Your task to perform on an android device: Show the shopping cart on target. Add usb-c to usb-a to the cart on target, then select checkout. Image 0: 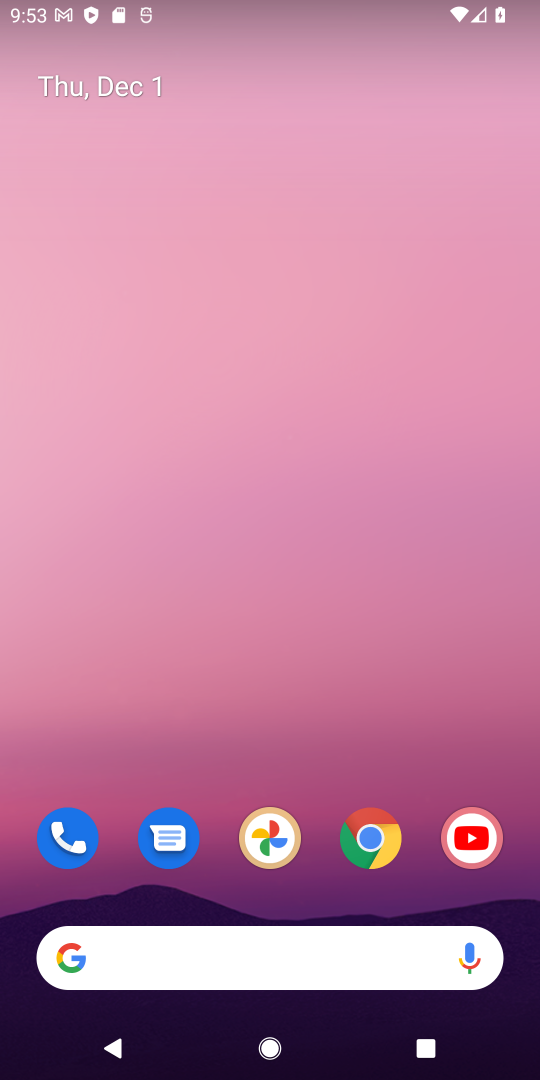
Step 0: drag from (275, 918) to (222, 334)
Your task to perform on an android device: Show the shopping cart on target. Add usb-c to usb-a to the cart on target, then select checkout. Image 1: 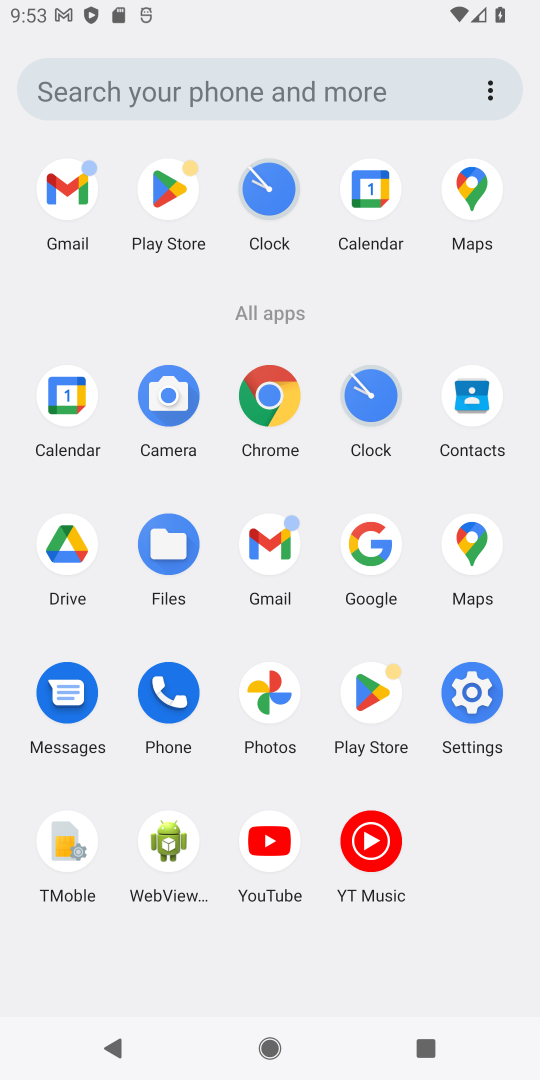
Step 1: click (363, 548)
Your task to perform on an android device: Show the shopping cart on target. Add usb-c to usb-a to the cart on target, then select checkout. Image 2: 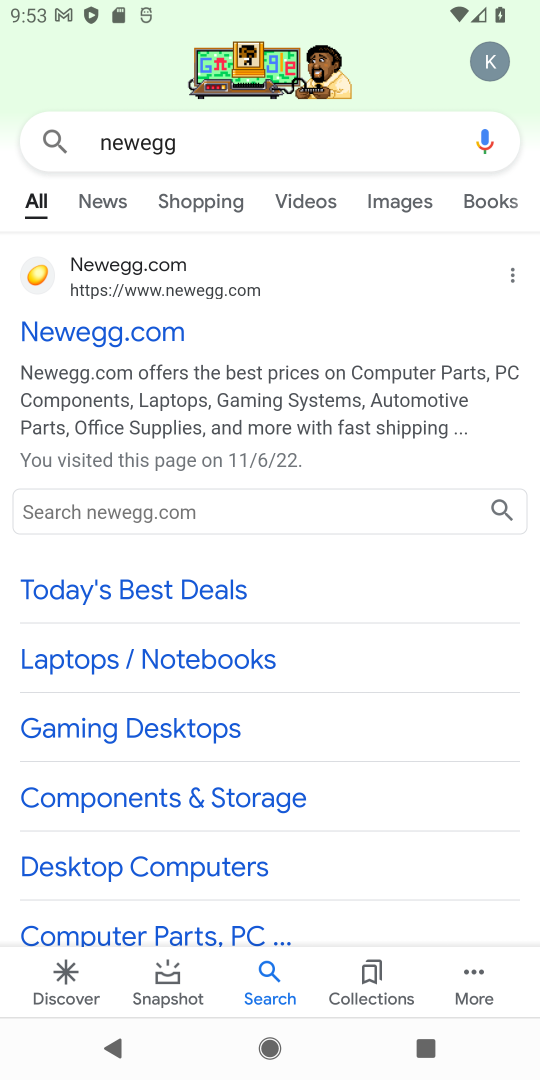
Step 2: click (190, 150)
Your task to perform on an android device: Show the shopping cart on target. Add usb-c to usb-a to the cart on target, then select checkout. Image 3: 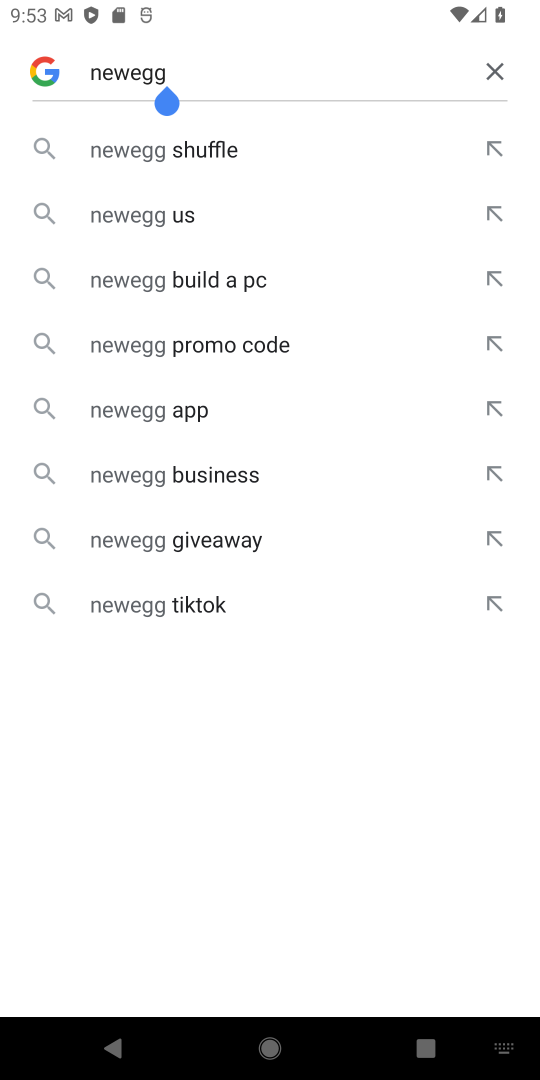
Step 3: click (486, 75)
Your task to perform on an android device: Show the shopping cart on target. Add usb-c to usb-a to the cart on target, then select checkout. Image 4: 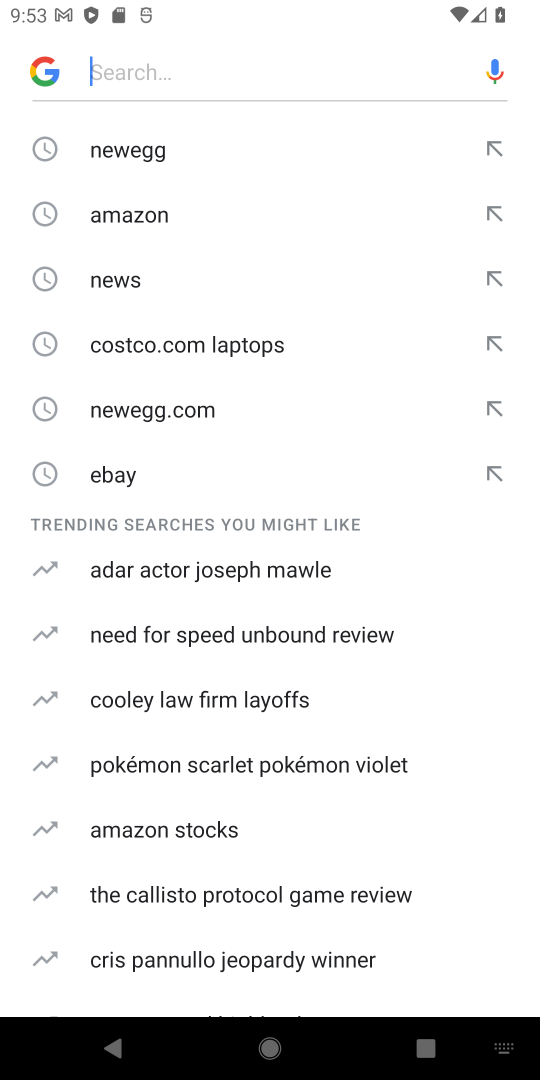
Step 4: type "target"
Your task to perform on an android device: Show the shopping cart on target. Add usb-c to usb-a to the cart on target, then select checkout. Image 5: 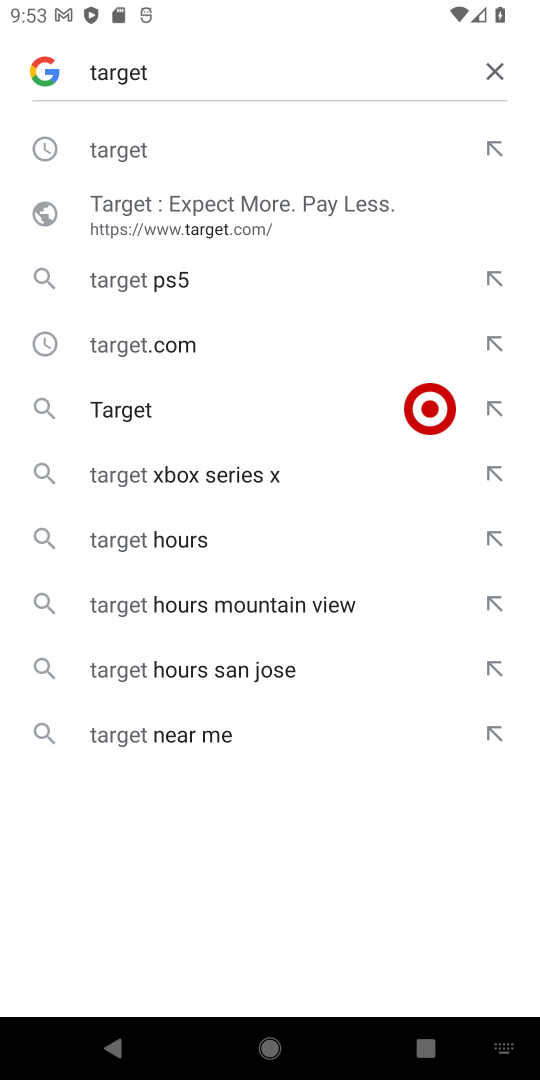
Step 5: click (144, 424)
Your task to perform on an android device: Show the shopping cart on target. Add usb-c to usb-a to the cart on target, then select checkout. Image 6: 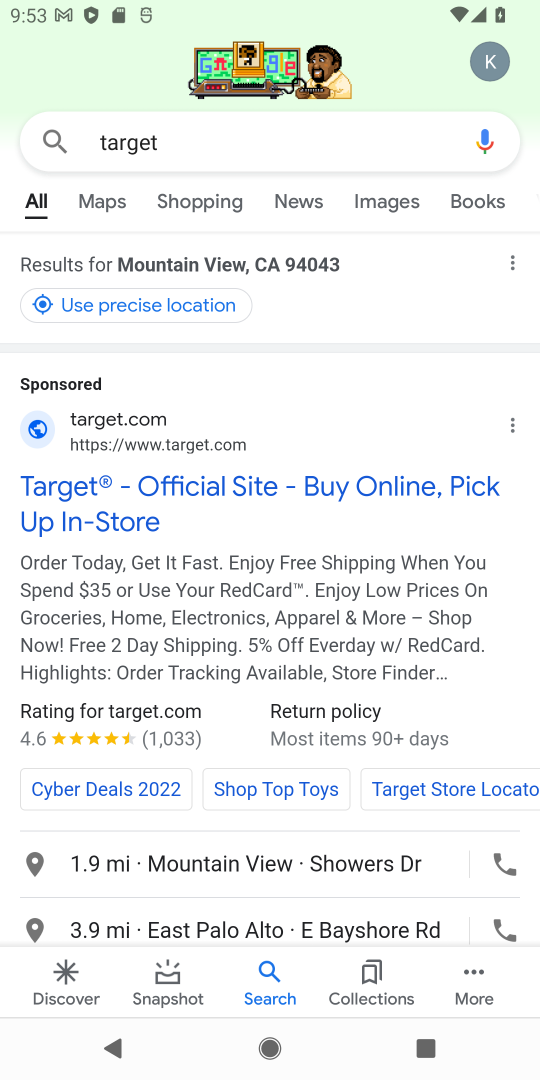
Step 6: click (98, 505)
Your task to perform on an android device: Show the shopping cart on target. Add usb-c to usb-a to the cart on target, then select checkout. Image 7: 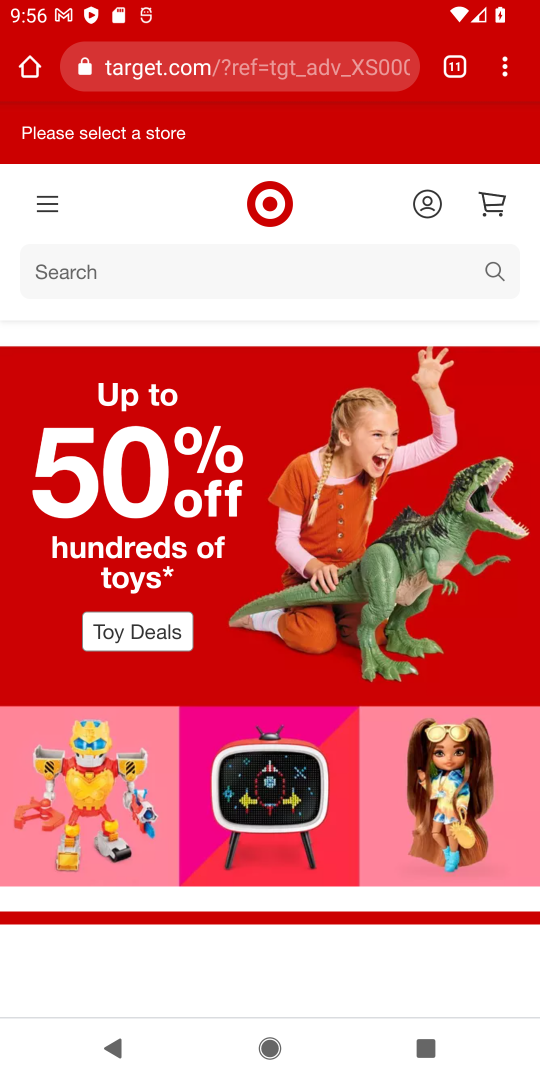
Step 7: click (259, 282)
Your task to perform on an android device: Show the shopping cart on target. Add usb-c to usb-a to the cart on target, then select checkout. Image 8: 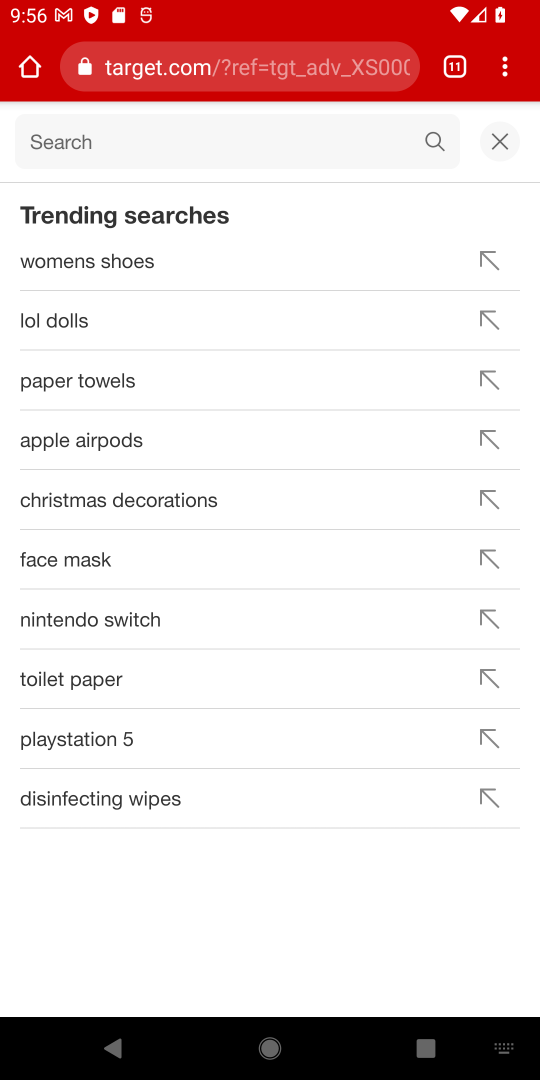
Step 8: type "usb-c to usb-a"
Your task to perform on an android device: Show the shopping cart on target. Add usb-c to usb-a to the cart on target, then select checkout. Image 9: 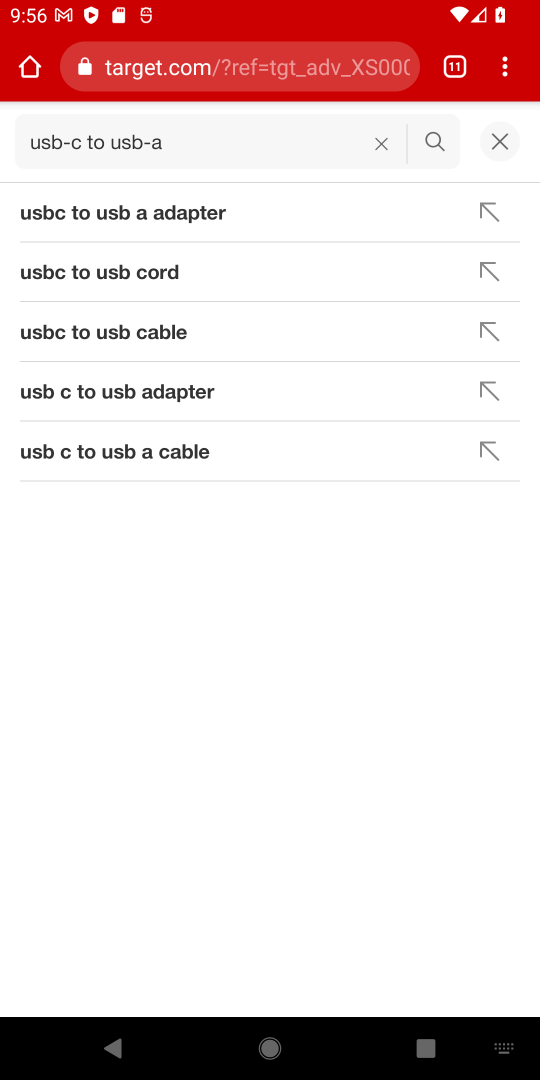
Step 9: click (136, 208)
Your task to perform on an android device: Show the shopping cart on target. Add usb-c to usb-a to the cart on target, then select checkout. Image 10: 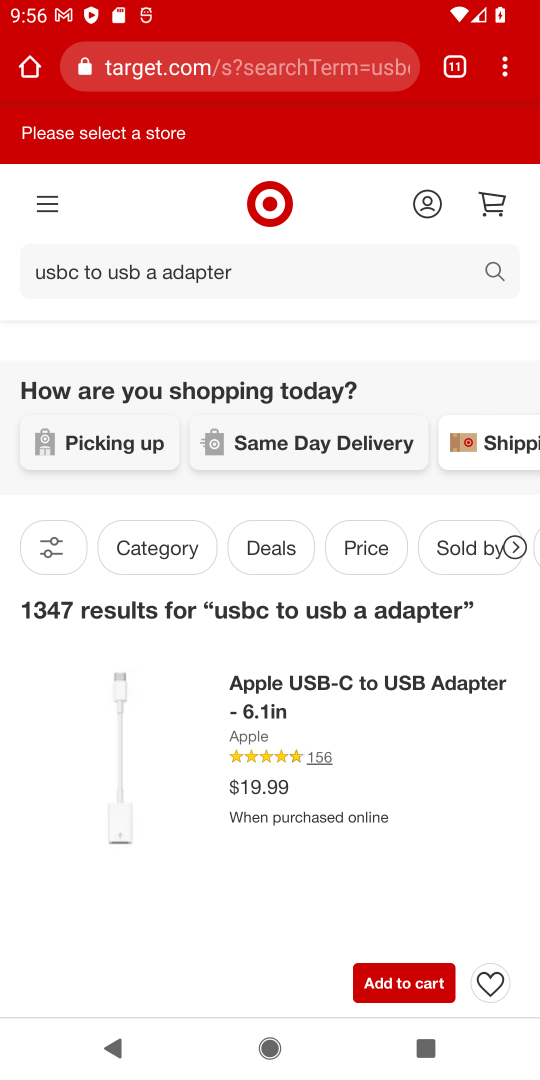
Step 10: click (383, 985)
Your task to perform on an android device: Show the shopping cart on target. Add usb-c to usb-a to the cart on target, then select checkout. Image 11: 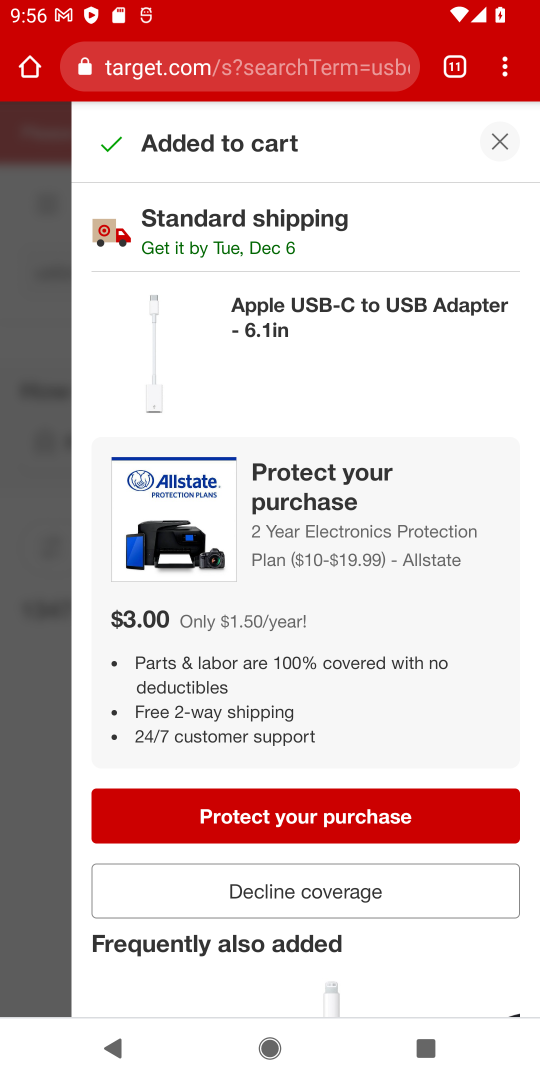
Step 11: click (502, 146)
Your task to perform on an android device: Show the shopping cart on target. Add usb-c to usb-a to the cart on target, then select checkout. Image 12: 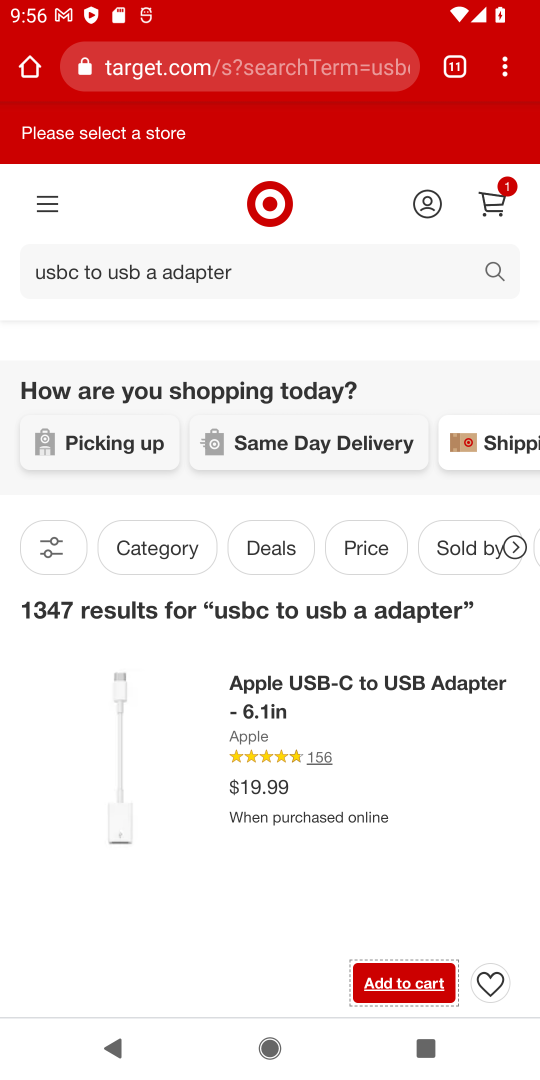
Step 12: click (493, 194)
Your task to perform on an android device: Show the shopping cart on target. Add usb-c to usb-a to the cart on target, then select checkout. Image 13: 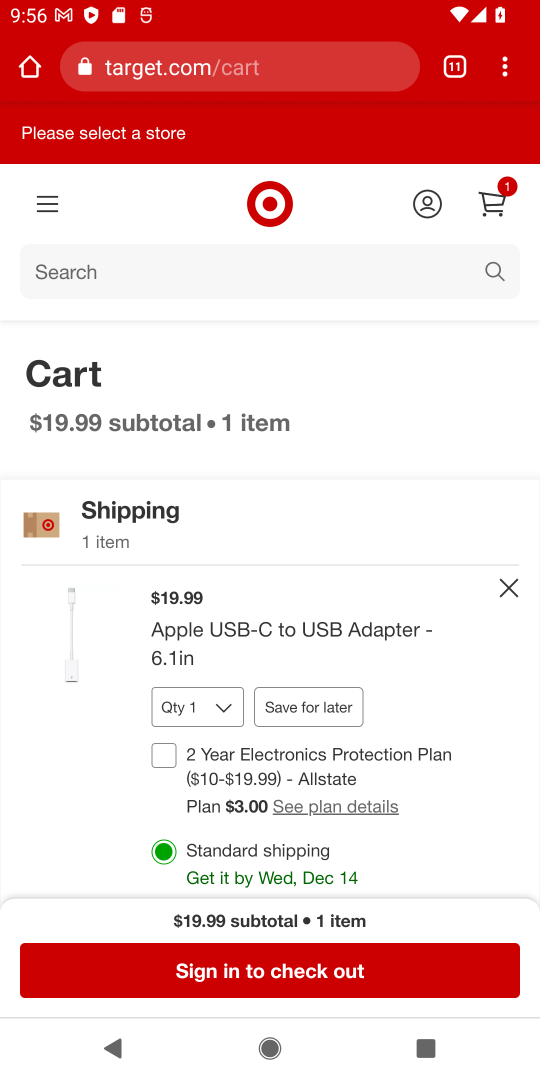
Step 13: task complete